Your task to perform on an android device: turn on showing notifications on the lock screen Image 0: 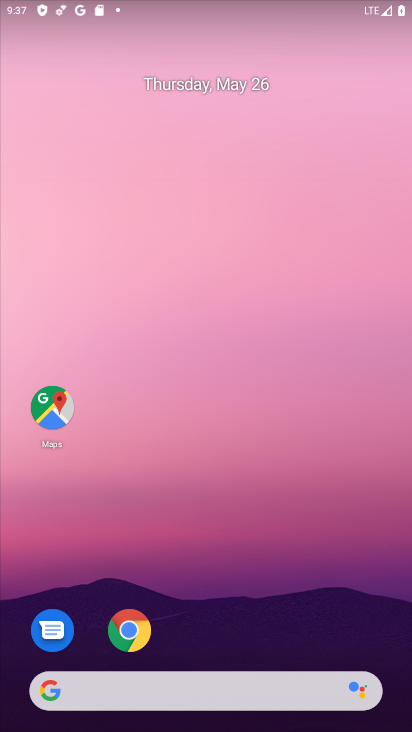
Step 0: drag from (177, 665) to (174, 124)
Your task to perform on an android device: turn on showing notifications on the lock screen Image 1: 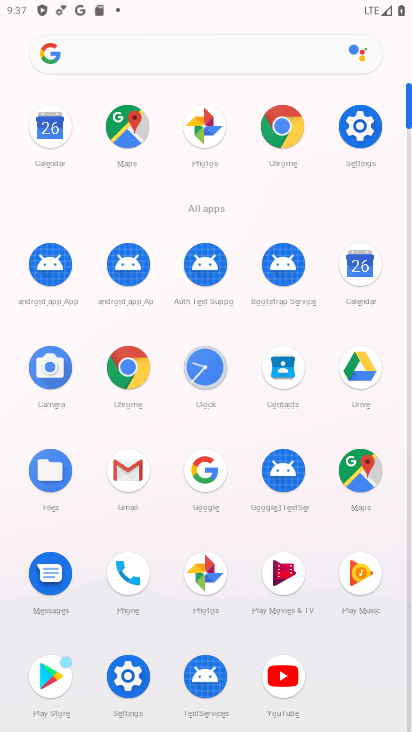
Step 1: click (373, 120)
Your task to perform on an android device: turn on showing notifications on the lock screen Image 2: 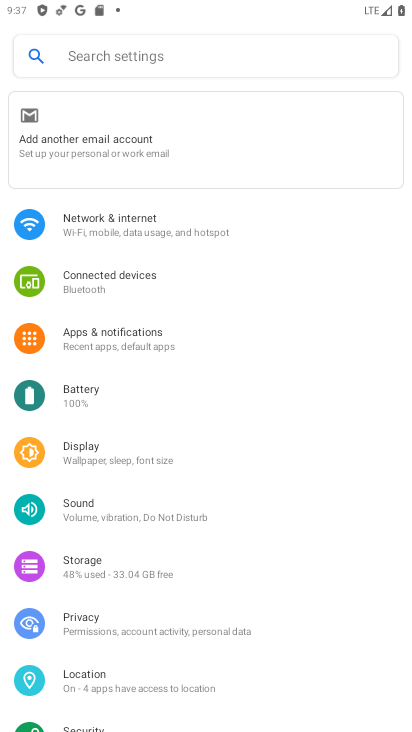
Step 2: click (160, 336)
Your task to perform on an android device: turn on showing notifications on the lock screen Image 3: 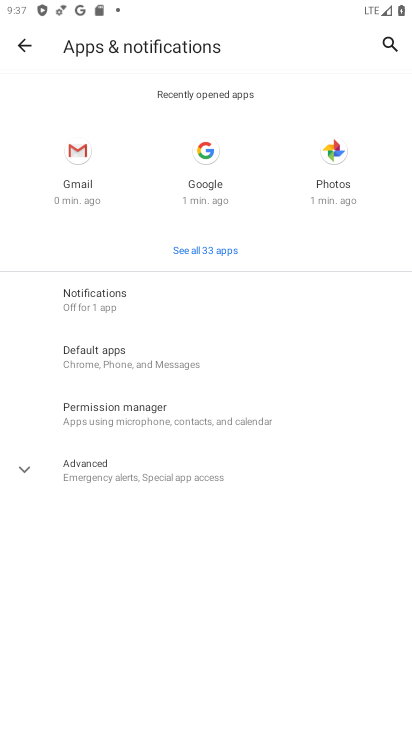
Step 3: click (128, 298)
Your task to perform on an android device: turn on showing notifications on the lock screen Image 4: 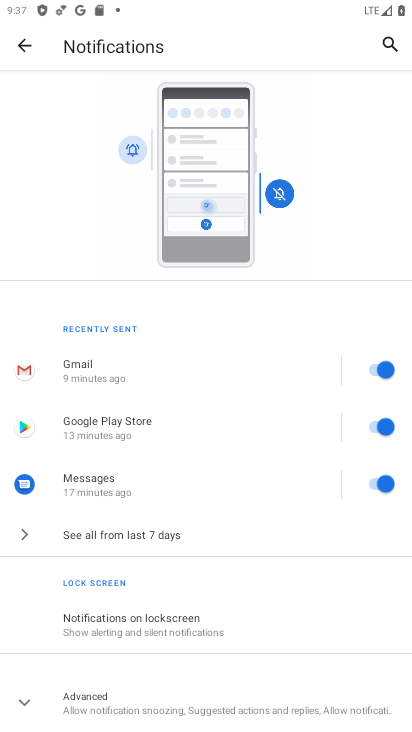
Step 4: click (124, 615)
Your task to perform on an android device: turn on showing notifications on the lock screen Image 5: 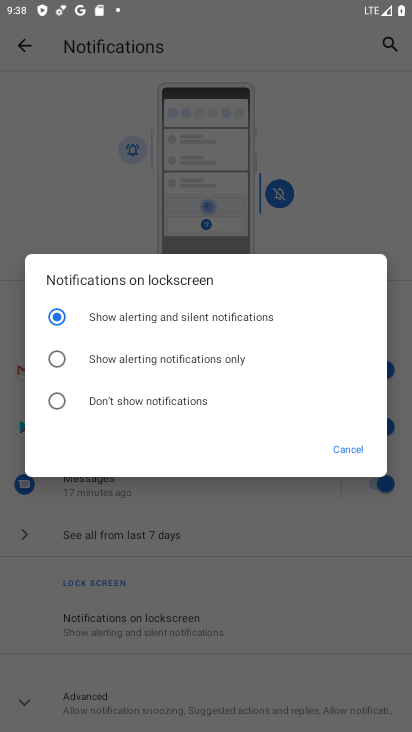
Step 5: click (154, 326)
Your task to perform on an android device: turn on showing notifications on the lock screen Image 6: 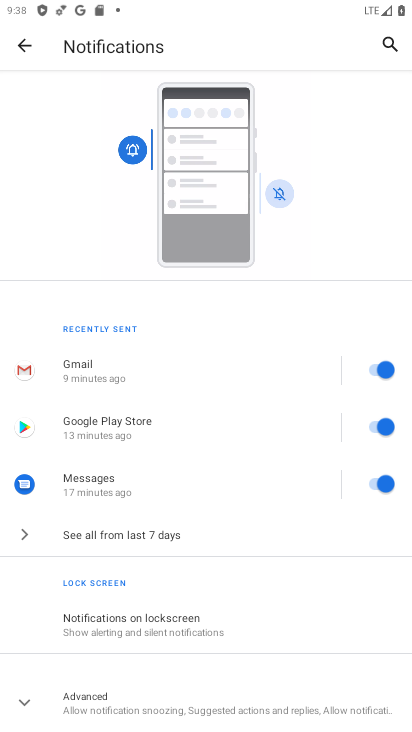
Step 6: task complete